Your task to perform on an android device: Search for vegetarian restaurants on Maps Image 0: 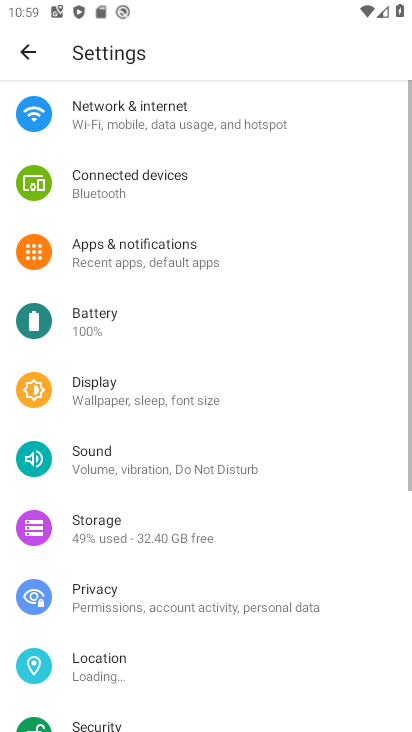
Step 0: press home button
Your task to perform on an android device: Search for vegetarian restaurants on Maps Image 1: 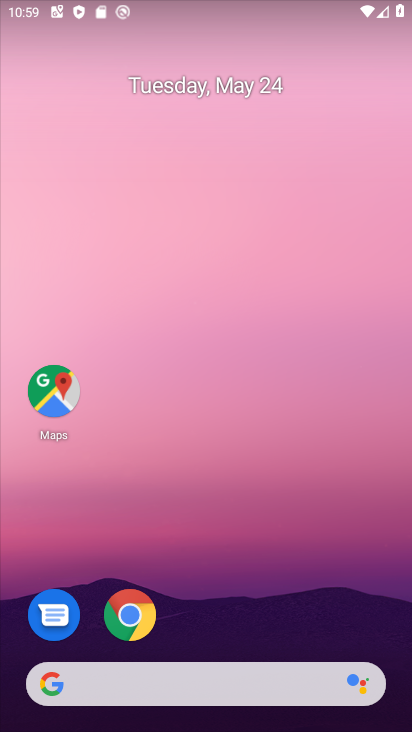
Step 1: click (62, 415)
Your task to perform on an android device: Search for vegetarian restaurants on Maps Image 2: 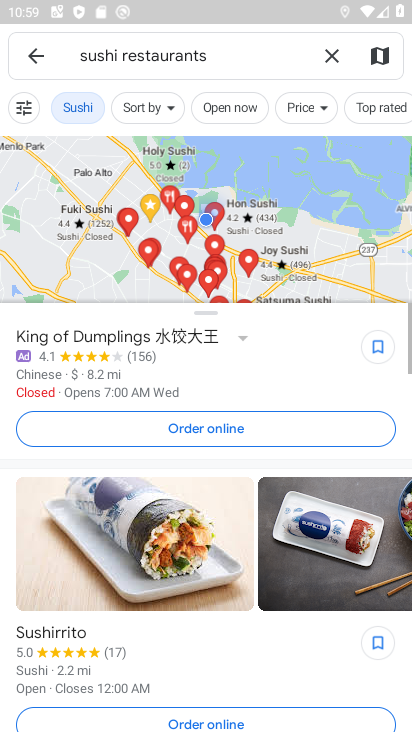
Step 2: click (340, 55)
Your task to perform on an android device: Search for vegetarian restaurants on Maps Image 3: 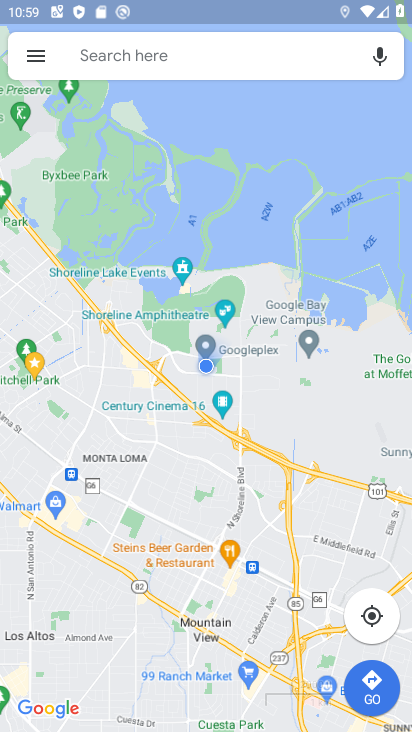
Step 3: click (293, 53)
Your task to perform on an android device: Search for vegetarian restaurants on Maps Image 4: 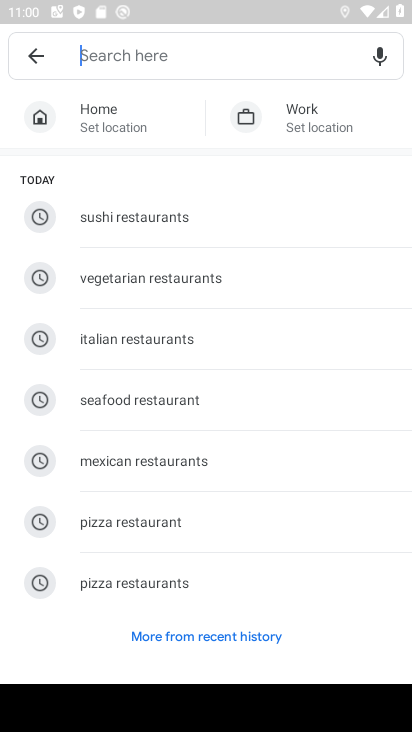
Step 4: click (122, 274)
Your task to perform on an android device: Search for vegetarian restaurants on Maps Image 5: 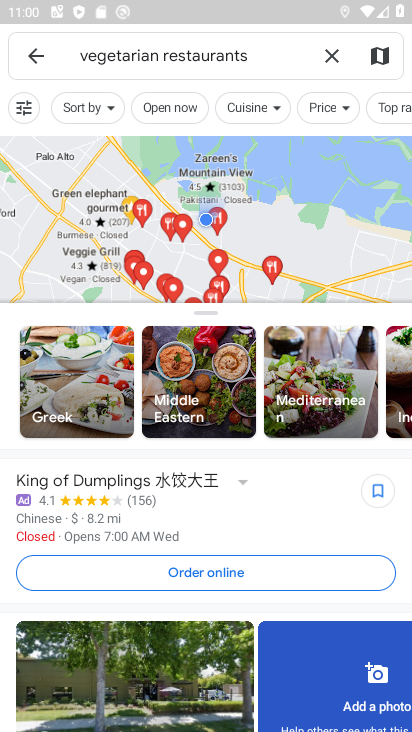
Step 5: task complete